Your task to perform on an android device: all mails in gmail Image 0: 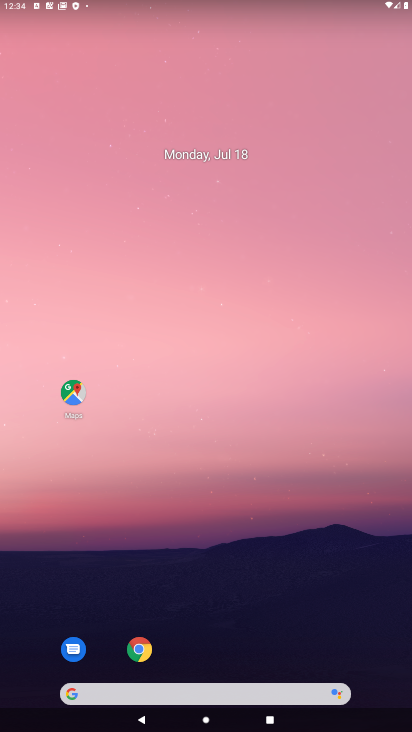
Step 0: drag from (374, 649) to (325, 64)
Your task to perform on an android device: all mails in gmail Image 1: 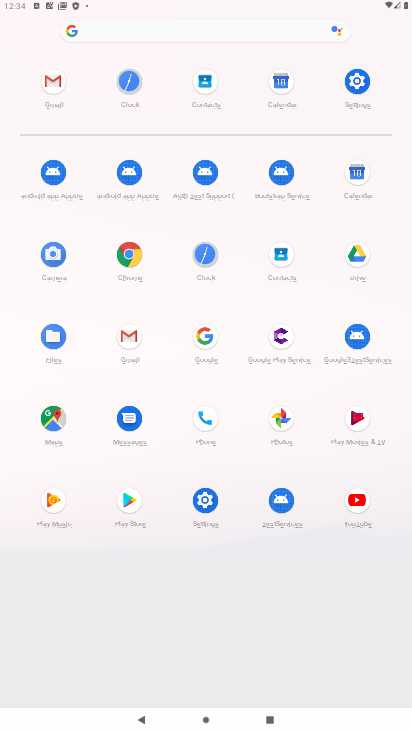
Step 1: click (127, 336)
Your task to perform on an android device: all mails in gmail Image 2: 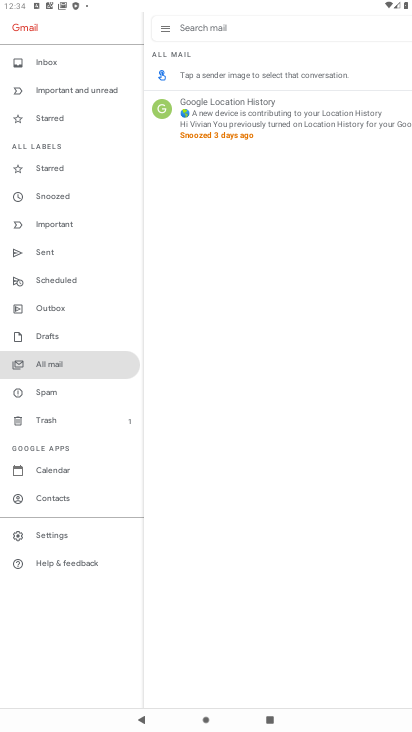
Step 2: click (61, 361)
Your task to perform on an android device: all mails in gmail Image 3: 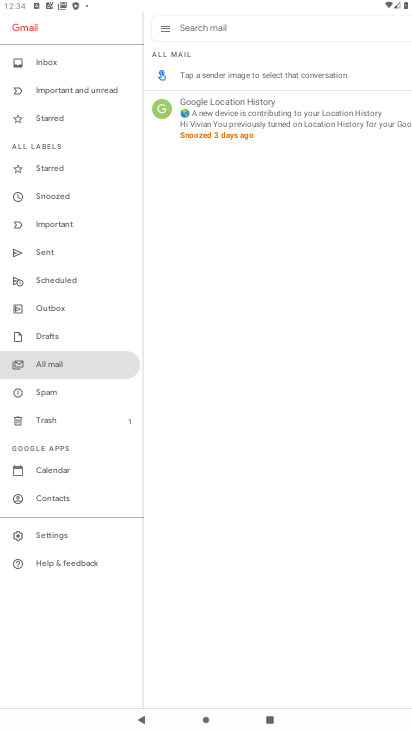
Step 3: task complete